Your task to perform on an android device: Search for sony triple a on target.com, select the first entry, and add it to the cart. Image 0: 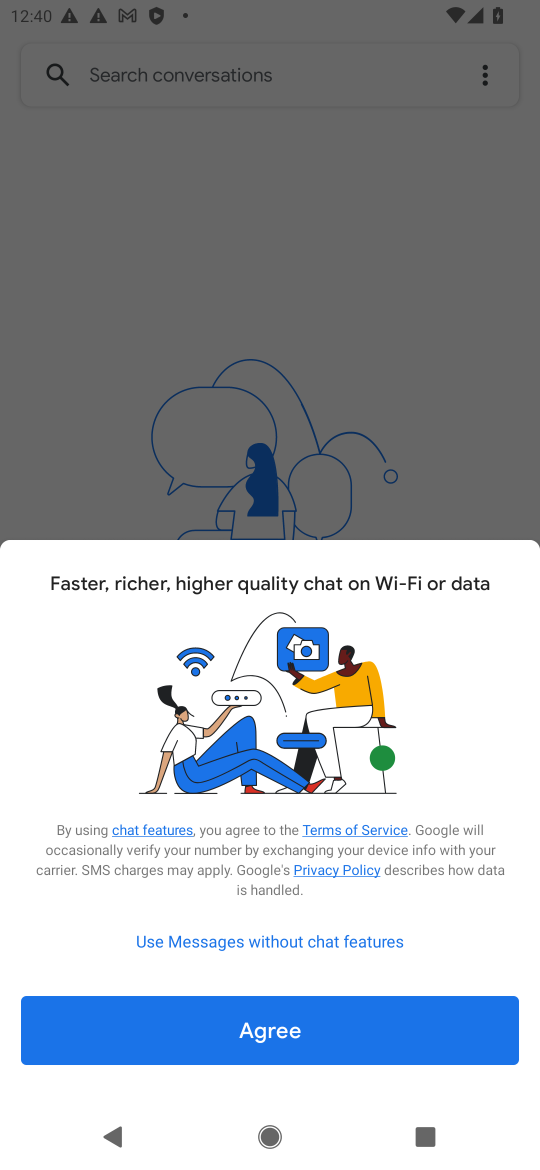
Step 0: press home button
Your task to perform on an android device: Search for sony triple a on target.com, select the first entry, and add it to the cart. Image 1: 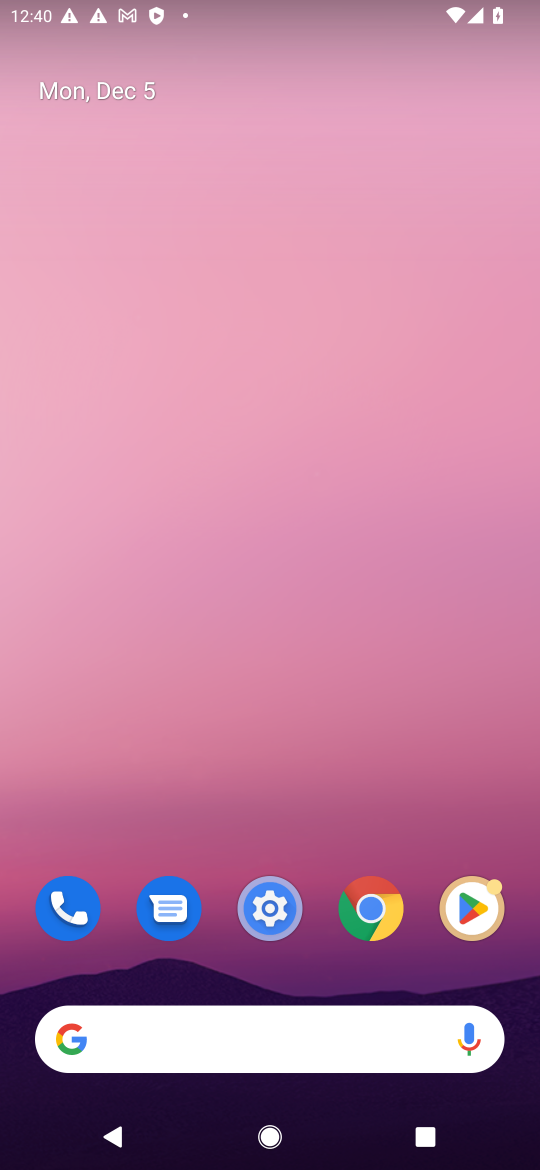
Step 1: drag from (229, 955) to (270, 280)
Your task to perform on an android device: Search for sony triple a on target.com, select the first entry, and add it to the cart. Image 2: 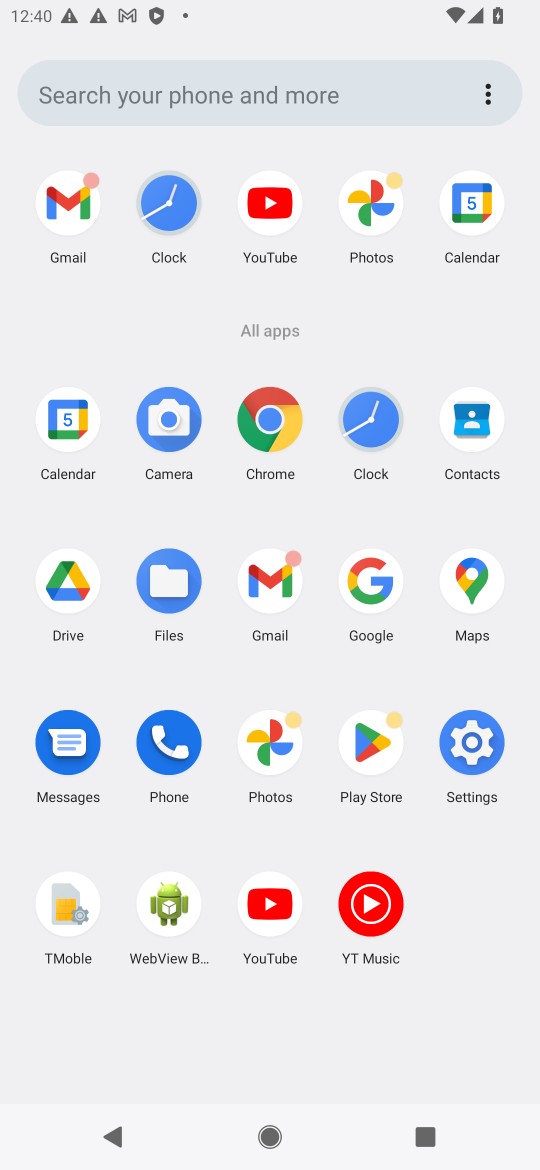
Step 2: click (372, 586)
Your task to perform on an android device: Search for sony triple a on target.com, select the first entry, and add it to the cart. Image 3: 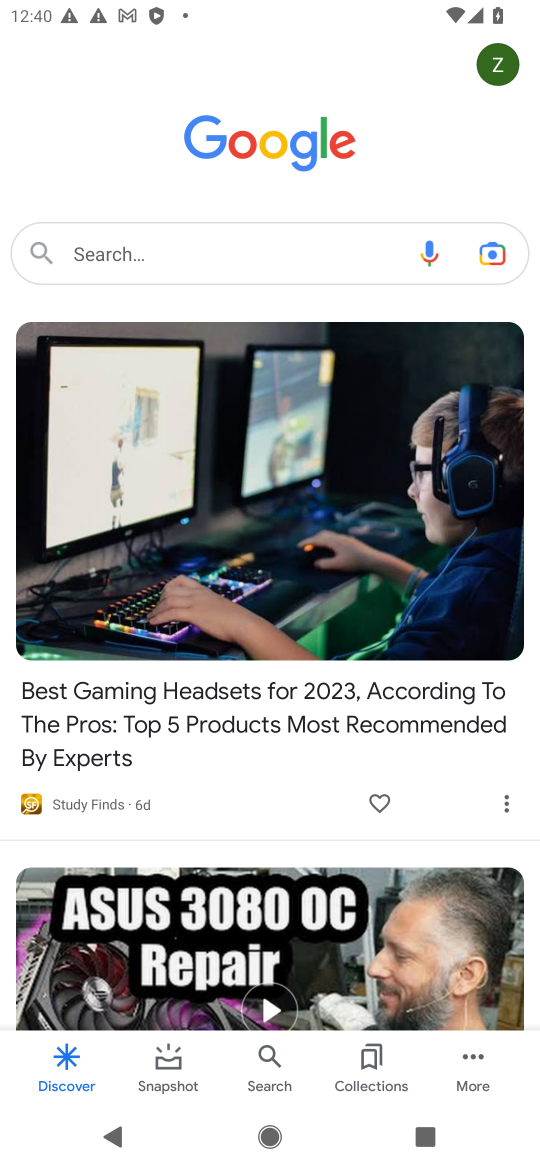
Step 3: click (238, 248)
Your task to perform on an android device: Search for sony triple a on target.com, select the first entry, and add it to the cart. Image 4: 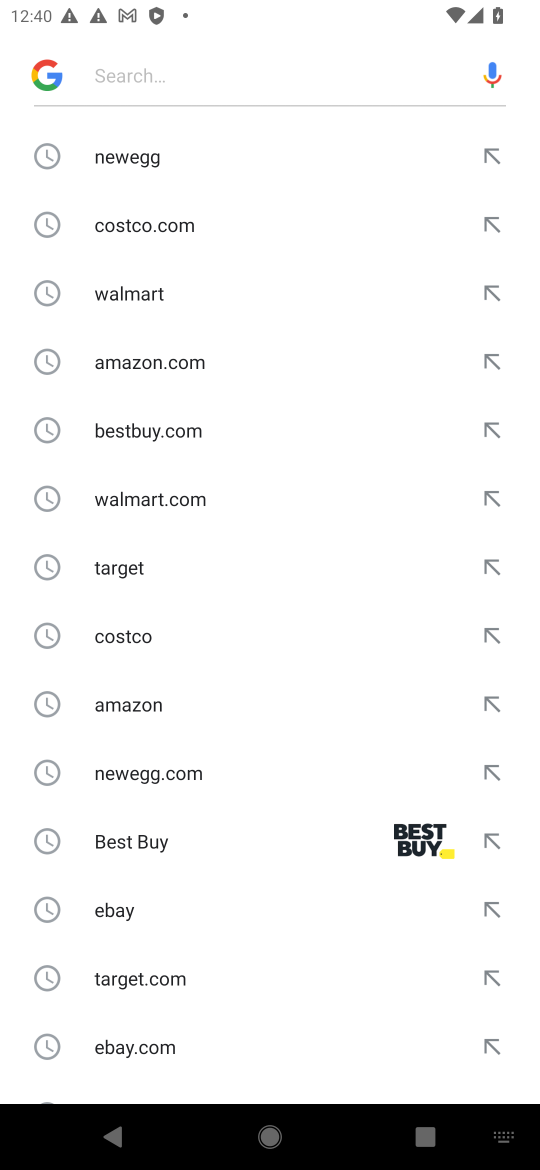
Step 4: click (144, 567)
Your task to perform on an android device: Search for sony triple a on target.com, select the first entry, and add it to the cart. Image 5: 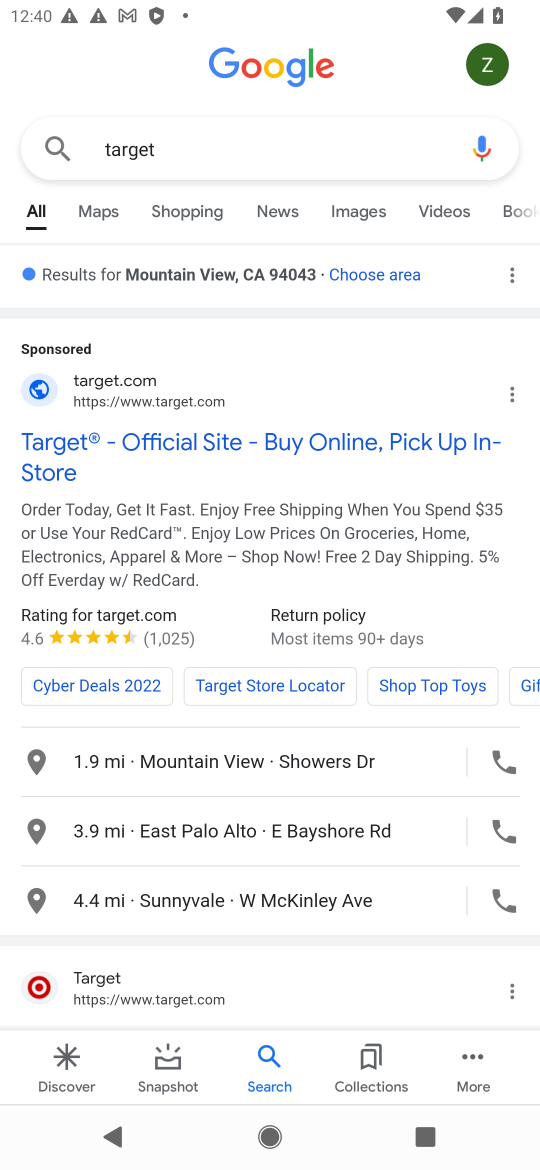
Step 5: click (171, 446)
Your task to perform on an android device: Search for sony triple a on target.com, select the first entry, and add it to the cart. Image 6: 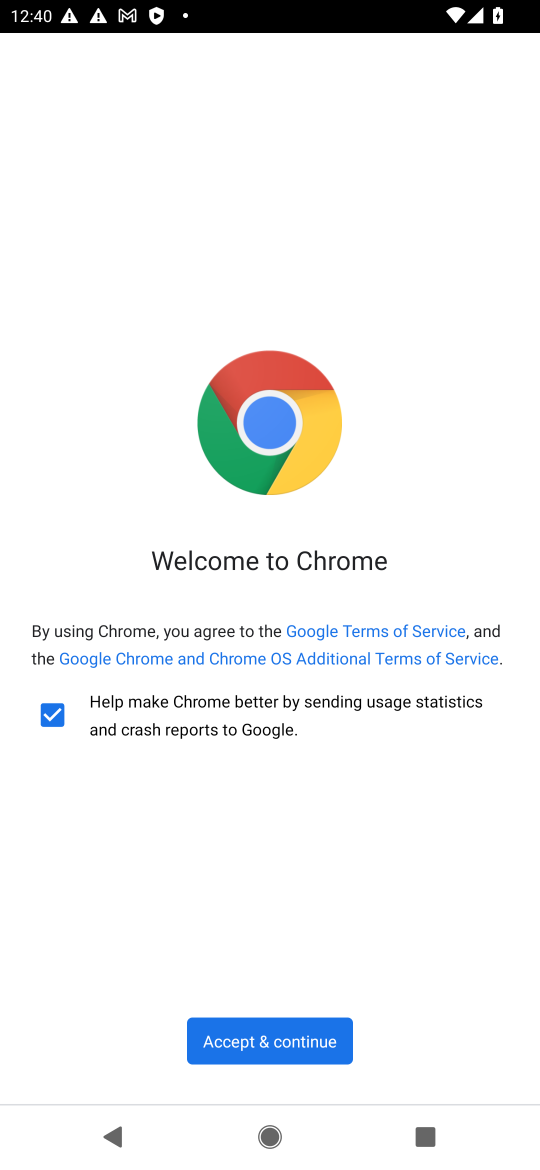
Step 6: click (256, 1044)
Your task to perform on an android device: Search for sony triple a on target.com, select the first entry, and add it to the cart. Image 7: 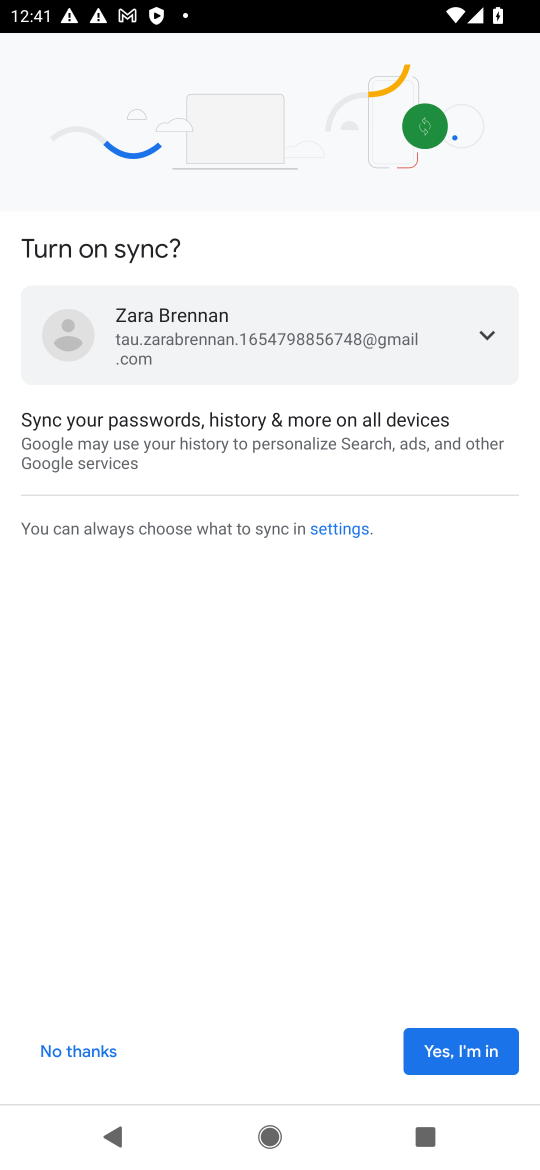
Step 7: click (443, 1063)
Your task to perform on an android device: Search for sony triple a on target.com, select the first entry, and add it to the cart. Image 8: 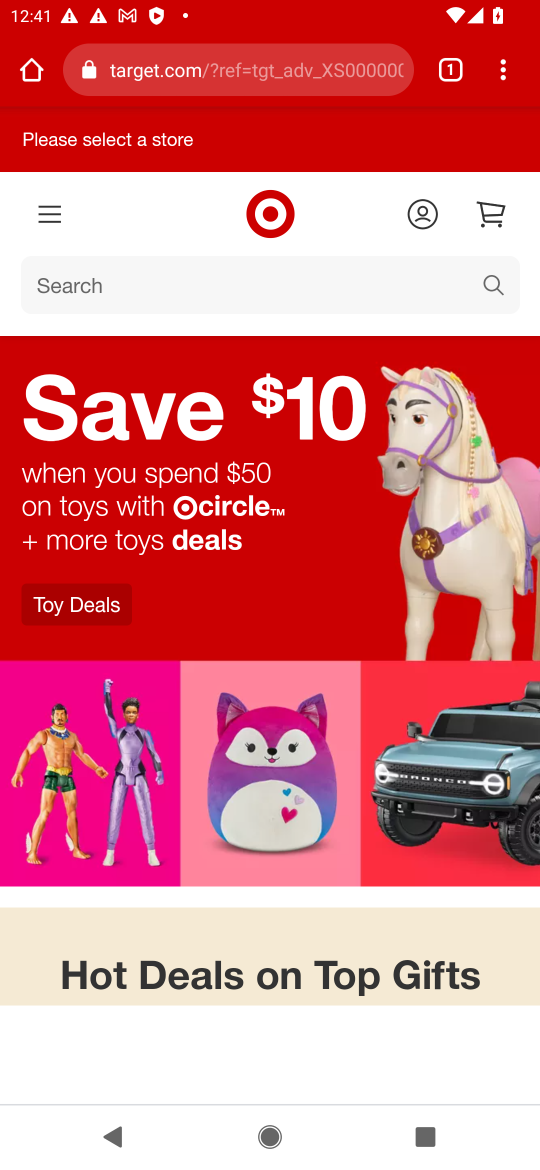
Step 8: click (196, 277)
Your task to perform on an android device: Search for sony triple a on target.com, select the first entry, and add it to the cart. Image 9: 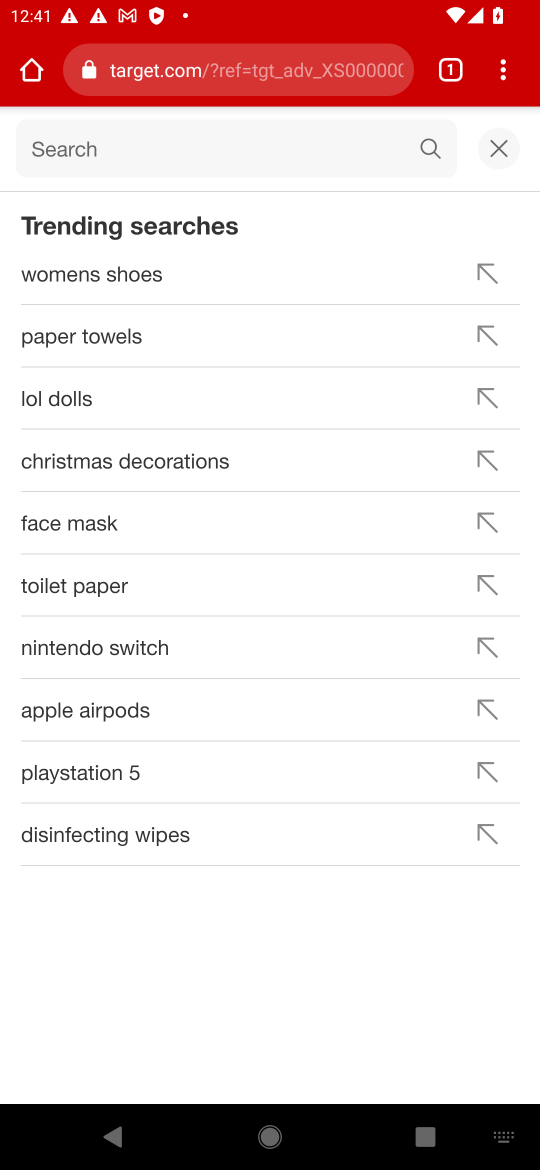
Step 9: type "sony triple a"
Your task to perform on an android device: Search for sony triple a on target.com, select the first entry, and add it to the cart. Image 10: 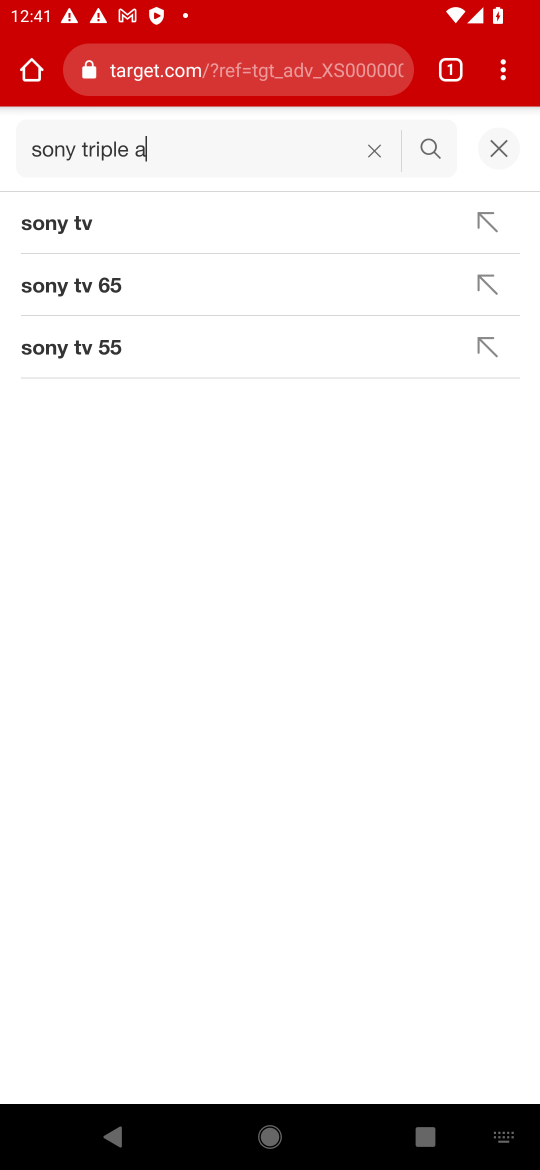
Step 10: click (429, 150)
Your task to perform on an android device: Search for sony triple a on target.com, select the first entry, and add it to the cart. Image 11: 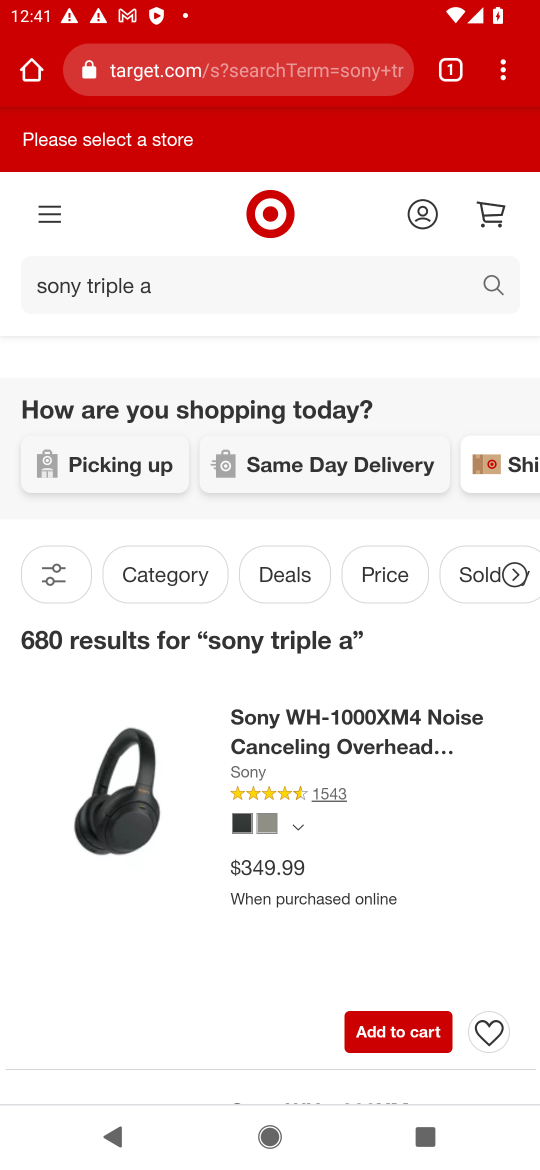
Step 11: click (420, 1030)
Your task to perform on an android device: Search for sony triple a on target.com, select the first entry, and add it to the cart. Image 12: 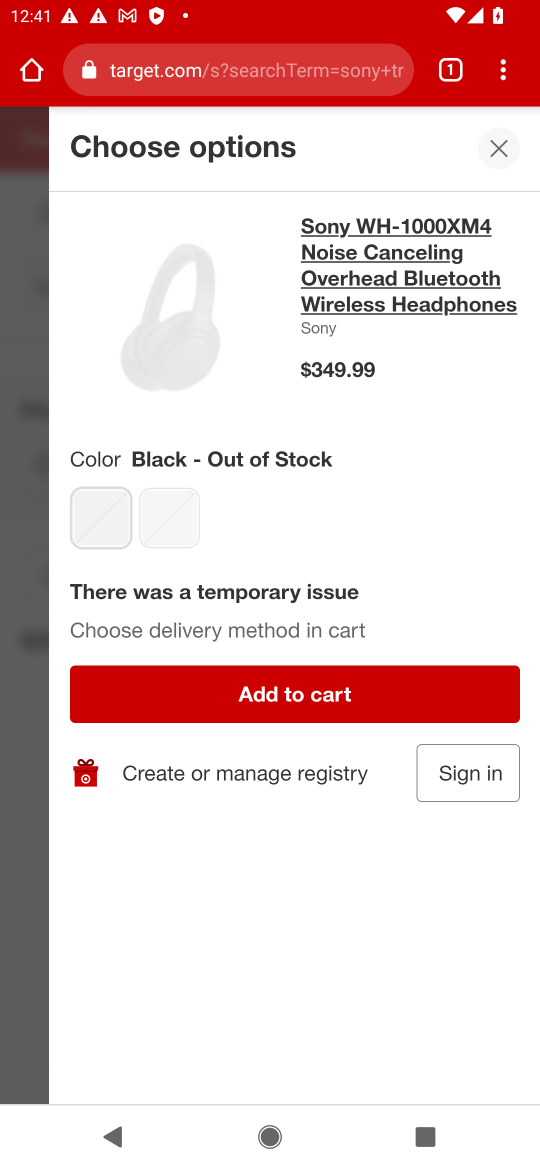
Step 12: click (325, 704)
Your task to perform on an android device: Search for sony triple a on target.com, select the first entry, and add it to the cart. Image 13: 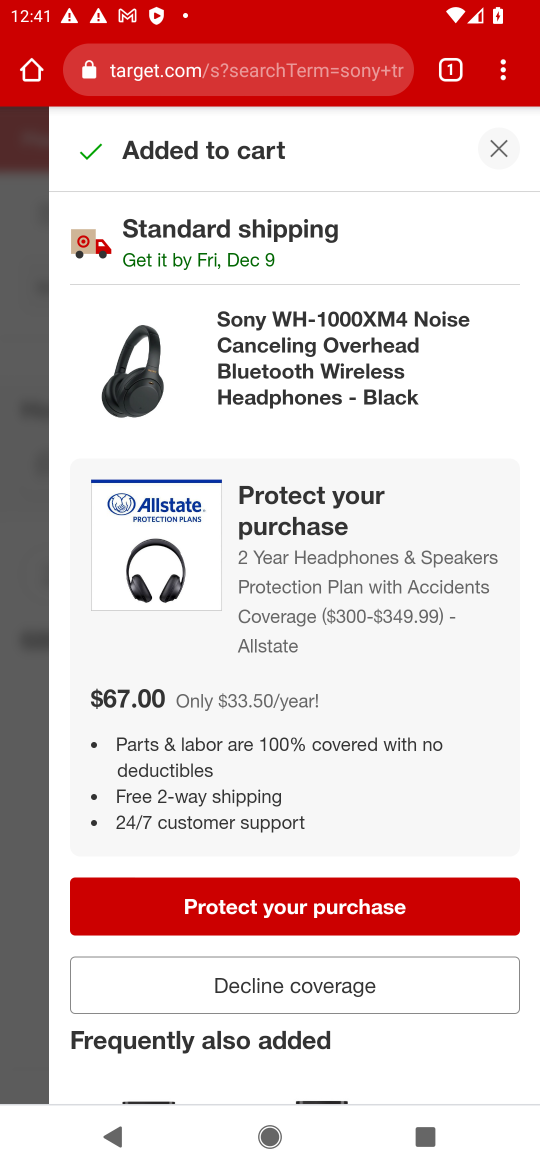
Step 13: click (501, 148)
Your task to perform on an android device: Search for sony triple a on target.com, select the first entry, and add it to the cart. Image 14: 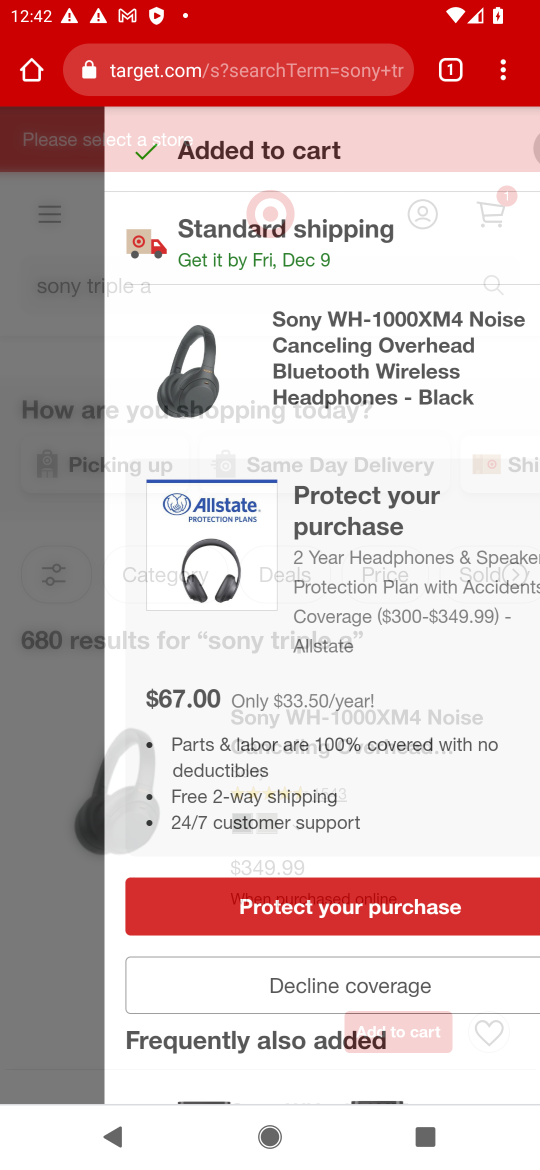
Step 14: click (6, 249)
Your task to perform on an android device: Search for sony triple a on target.com, select the first entry, and add it to the cart. Image 15: 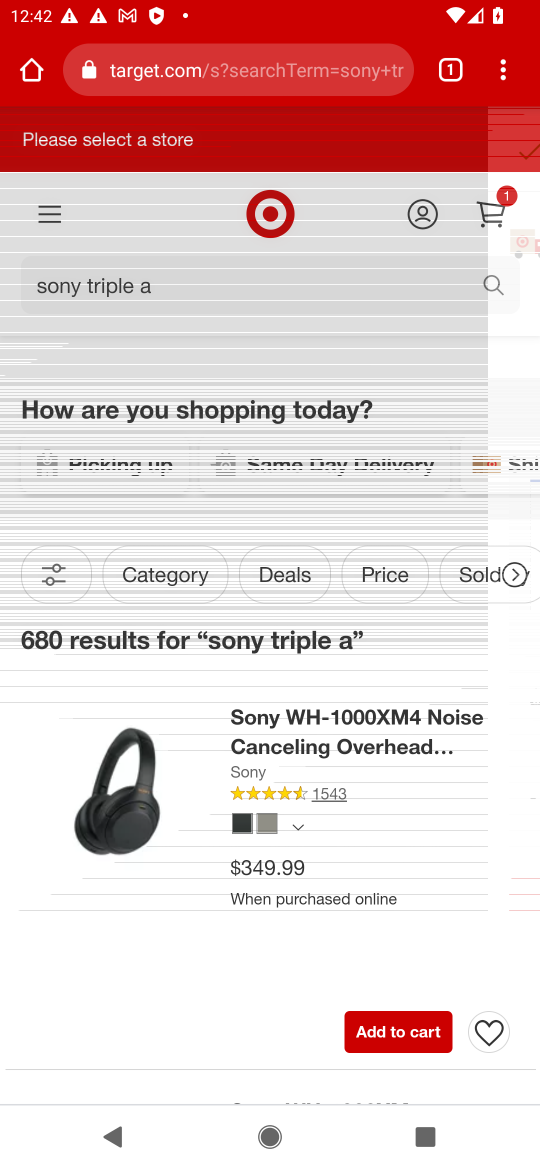
Step 15: task complete